Your task to perform on an android device: Open Google Maps Image 0: 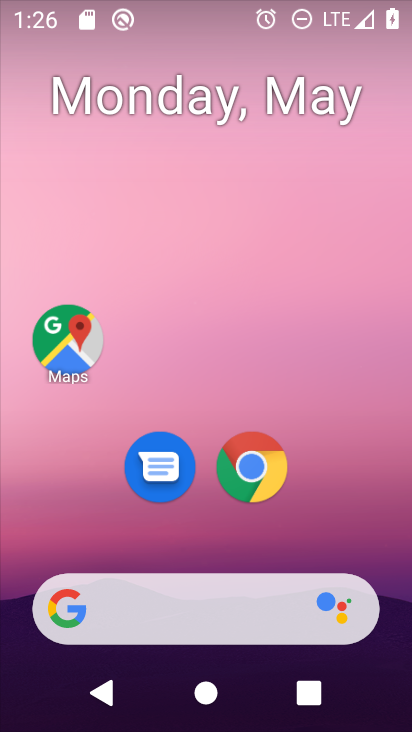
Step 0: click (75, 357)
Your task to perform on an android device: Open Google Maps Image 1: 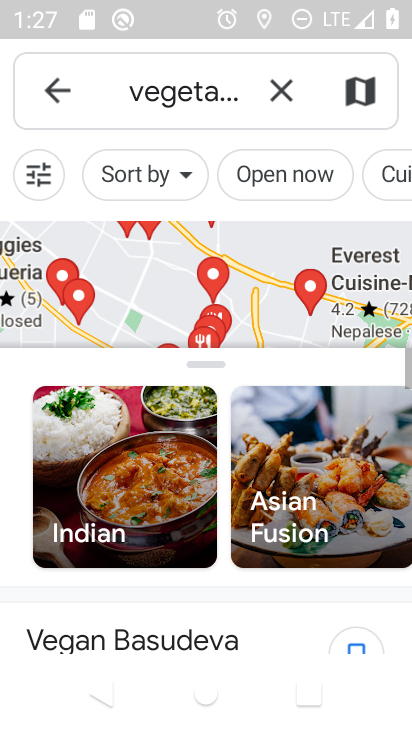
Step 1: task complete